Your task to perform on an android device: set default search engine in the chrome app Image 0: 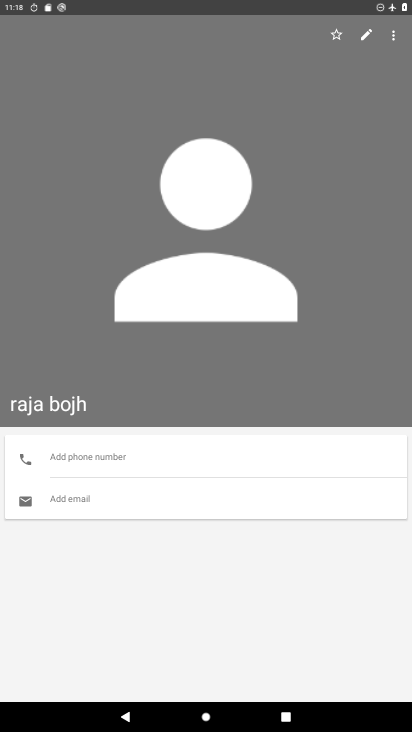
Step 0: press home button
Your task to perform on an android device: set default search engine in the chrome app Image 1: 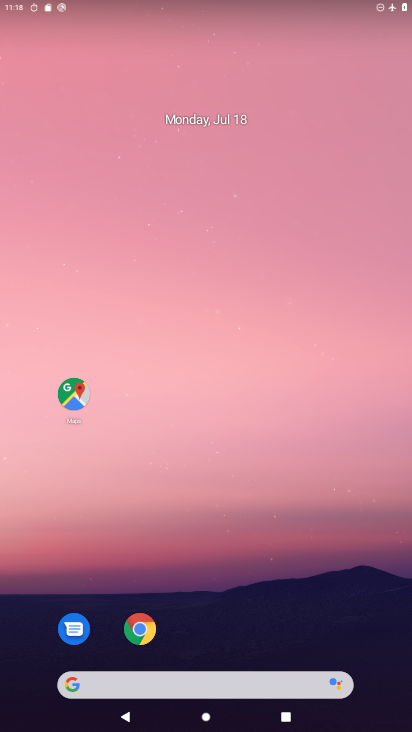
Step 1: drag from (276, 605) to (209, 134)
Your task to perform on an android device: set default search engine in the chrome app Image 2: 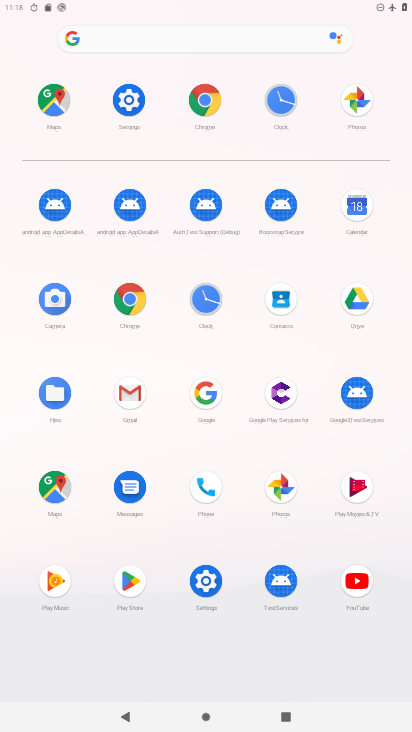
Step 2: click (206, 98)
Your task to perform on an android device: set default search engine in the chrome app Image 3: 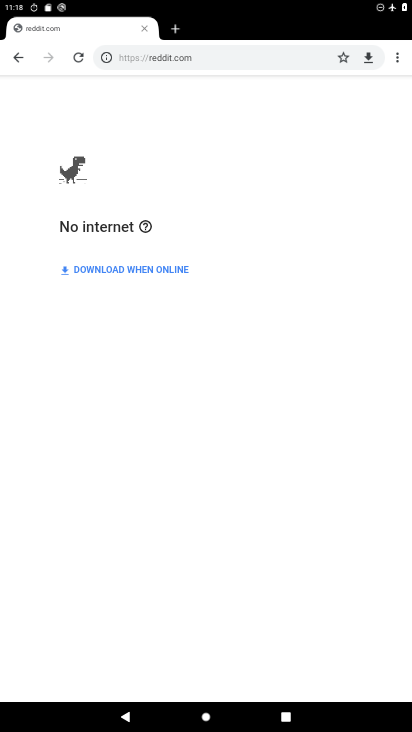
Step 3: drag from (397, 54) to (290, 390)
Your task to perform on an android device: set default search engine in the chrome app Image 4: 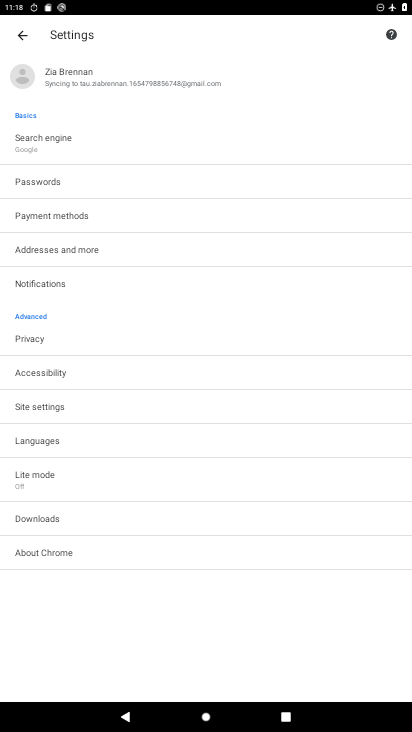
Step 4: click (55, 147)
Your task to perform on an android device: set default search engine in the chrome app Image 5: 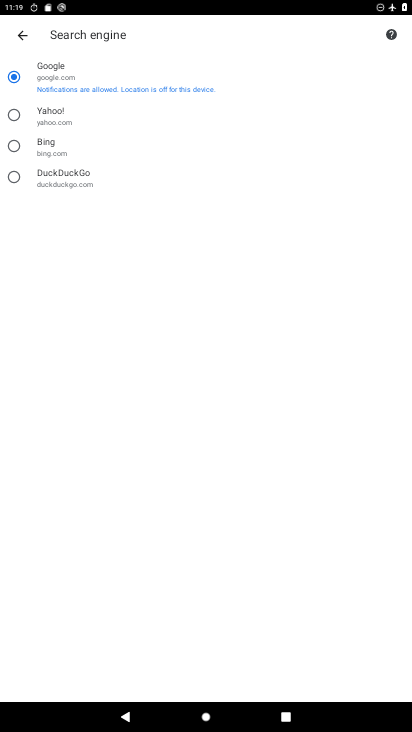
Step 5: task complete